Your task to perform on an android device: Show me productivity apps on the Play Store Image 0: 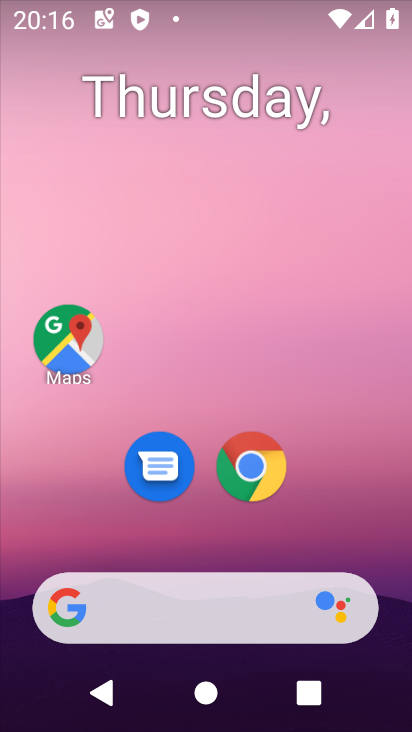
Step 0: drag from (385, 549) to (341, 218)
Your task to perform on an android device: Show me productivity apps on the Play Store Image 1: 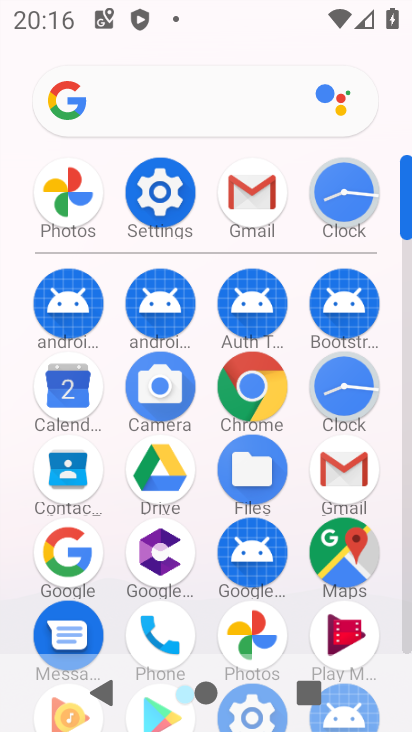
Step 1: drag from (109, 515) to (91, 313)
Your task to perform on an android device: Show me productivity apps on the Play Store Image 2: 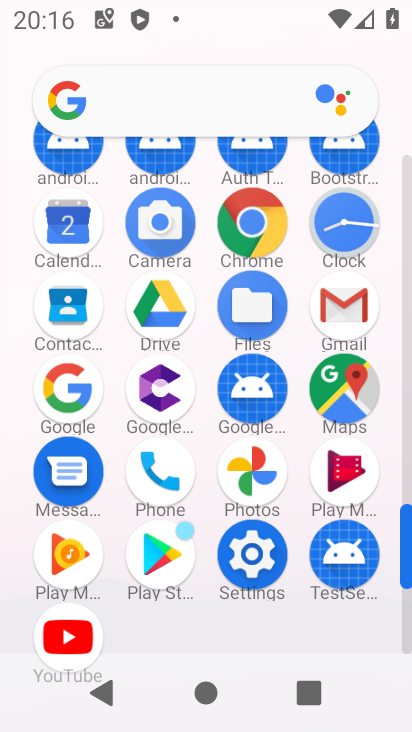
Step 2: click (152, 550)
Your task to perform on an android device: Show me productivity apps on the Play Store Image 3: 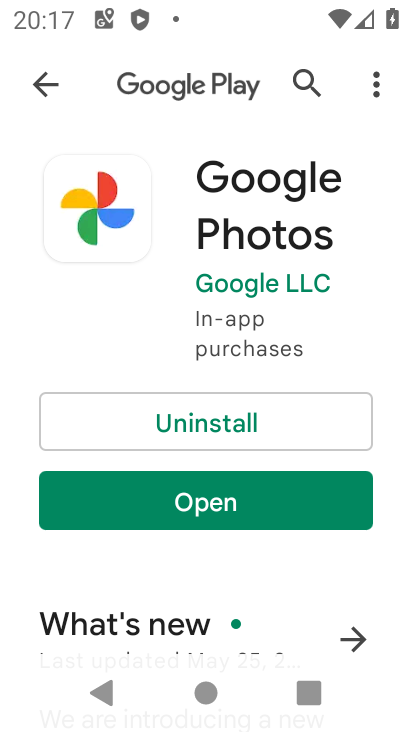
Step 3: click (34, 78)
Your task to perform on an android device: Show me productivity apps on the Play Store Image 4: 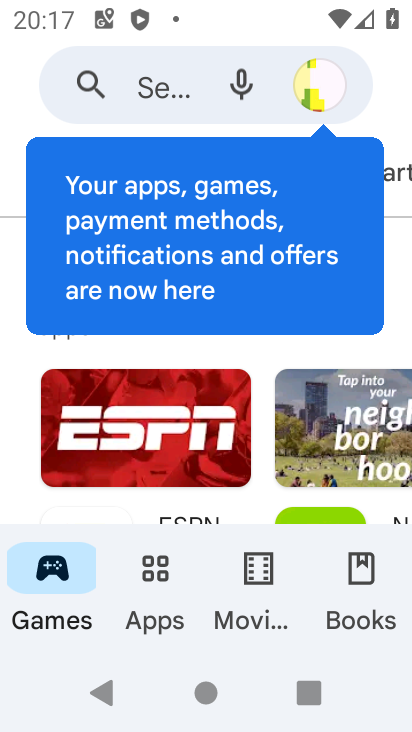
Step 4: drag from (393, 238) to (356, 702)
Your task to perform on an android device: Show me productivity apps on the Play Store Image 5: 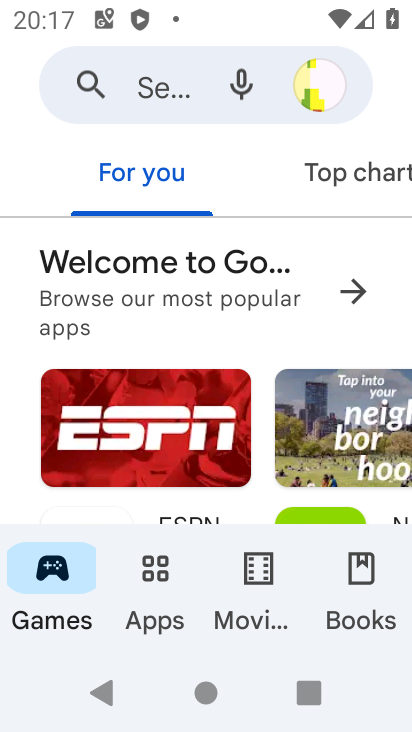
Step 5: click (152, 559)
Your task to perform on an android device: Show me productivity apps on the Play Store Image 6: 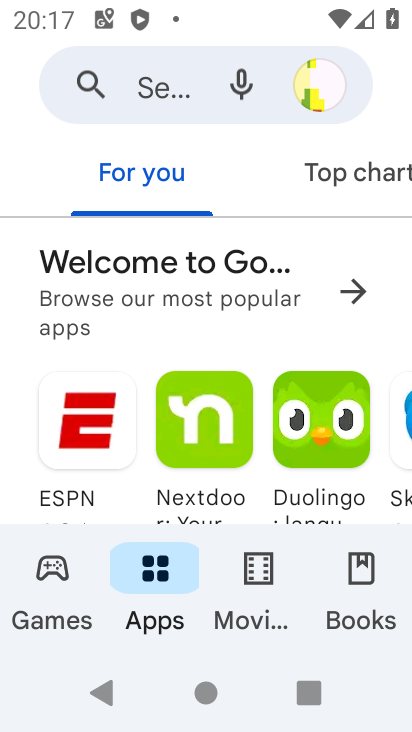
Step 6: drag from (353, 197) to (0, 202)
Your task to perform on an android device: Show me productivity apps on the Play Store Image 7: 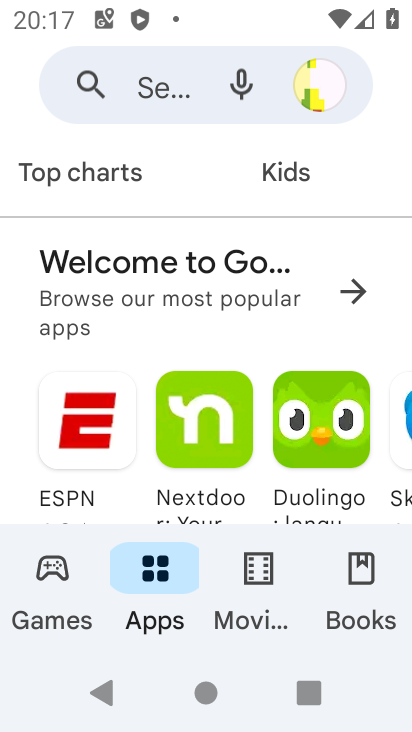
Step 7: drag from (356, 195) to (1, 205)
Your task to perform on an android device: Show me productivity apps on the Play Store Image 8: 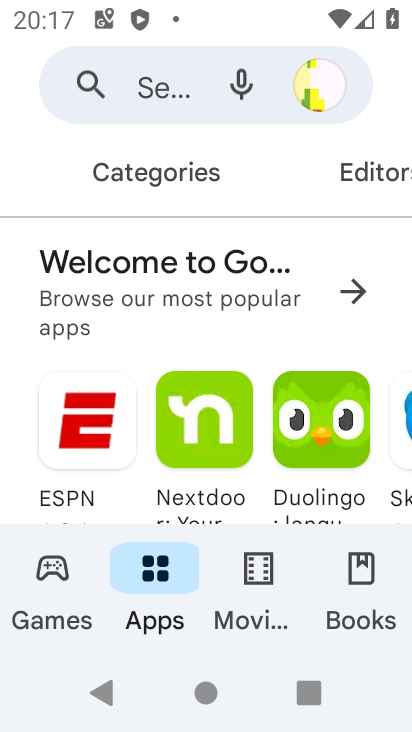
Step 8: click (109, 177)
Your task to perform on an android device: Show me productivity apps on the Play Store Image 9: 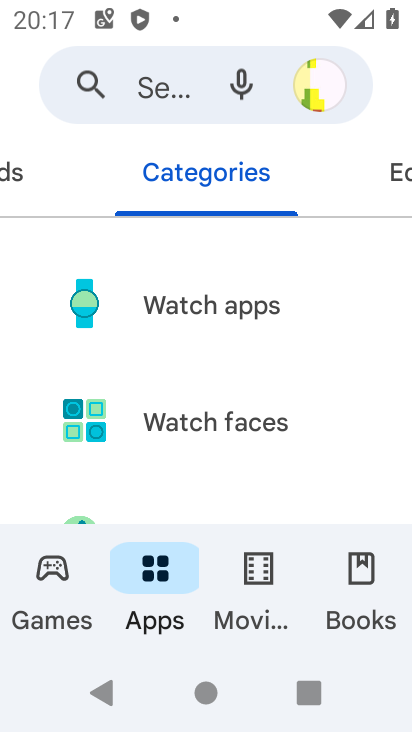
Step 9: drag from (324, 474) to (299, 3)
Your task to perform on an android device: Show me productivity apps on the Play Store Image 10: 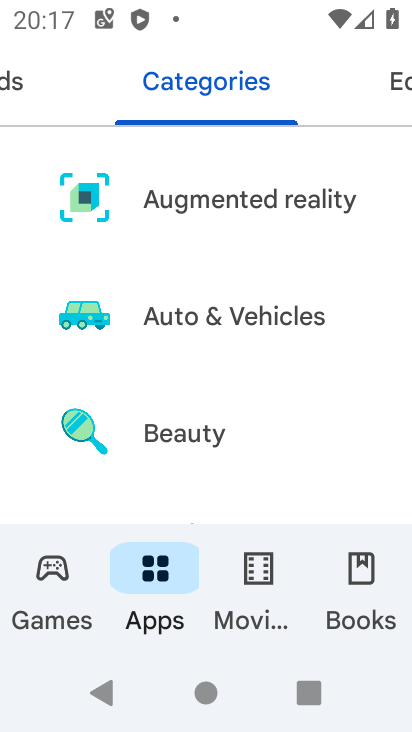
Step 10: drag from (320, 507) to (302, 17)
Your task to perform on an android device: Show me productivity apps on the Play Store Image 11: 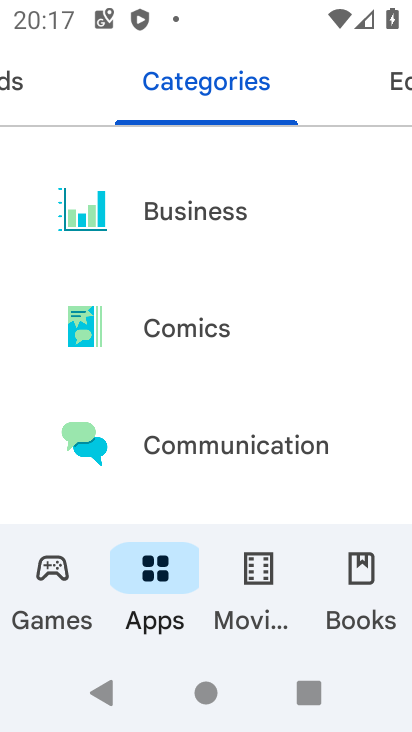
Step 11: drag from (339, 497) to (321, 10)
Your task to perform on an android device: Show me productivity apps on the Play Store Image 12: 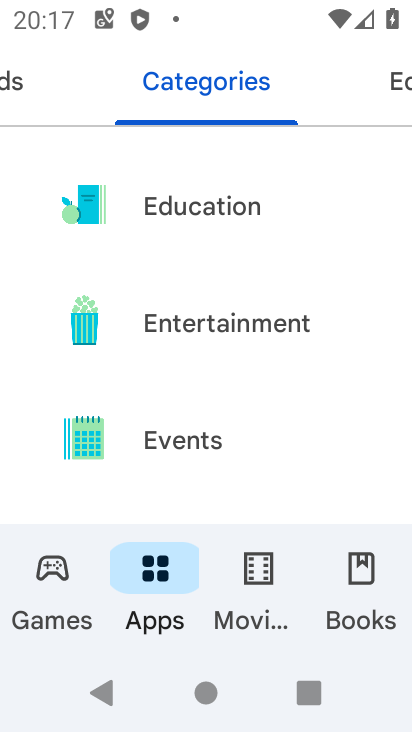
Step 12: drag from (299, 474) to (287, 8)
Your task to perform on an android device: Show me productivity apps on the Play Store Image 13: 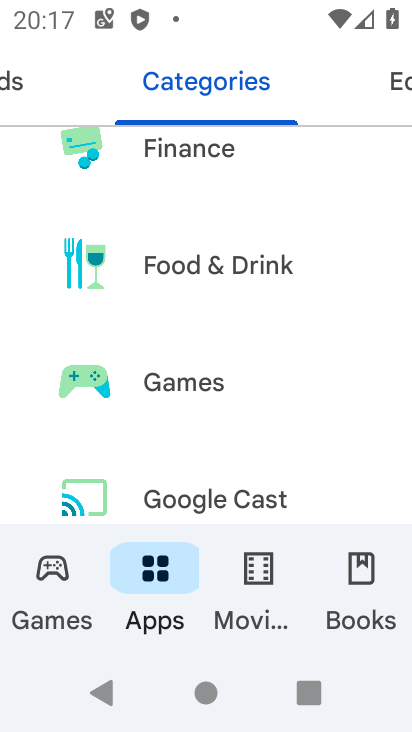
Step 13: drag from (342, 288) to (327, 18)
Your task to perform on an android device: Show me productivity apps on the Play Store Image 14: 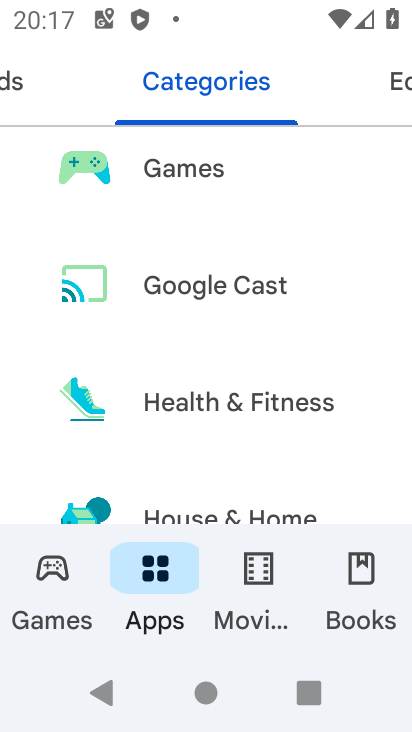
Step 14: drag from (366, 511) to (334, 6)
Your task to perform on an android device: Show me productivity apps on the Play Store Image 15: 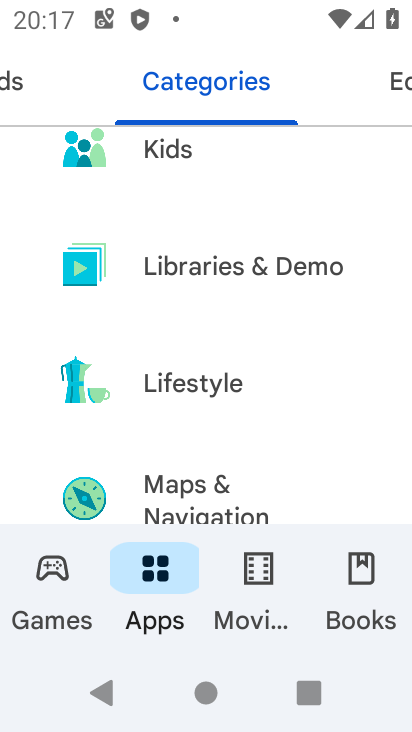
Step 15: drag from (345, 514) to (325, 61)
Your task to perform on an android device: Show me productivity apps on the Play Store Image 16: 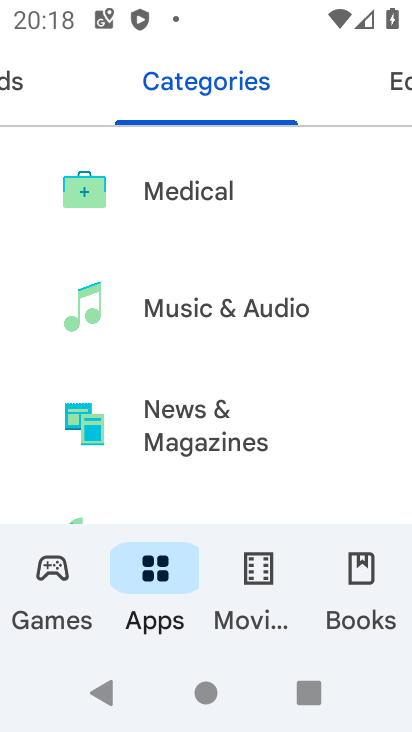
Step 16: drag from (367, 490) to (277, 0)
Your task to perform on an android device: Show me productivity apps on the Play Store Image 17: 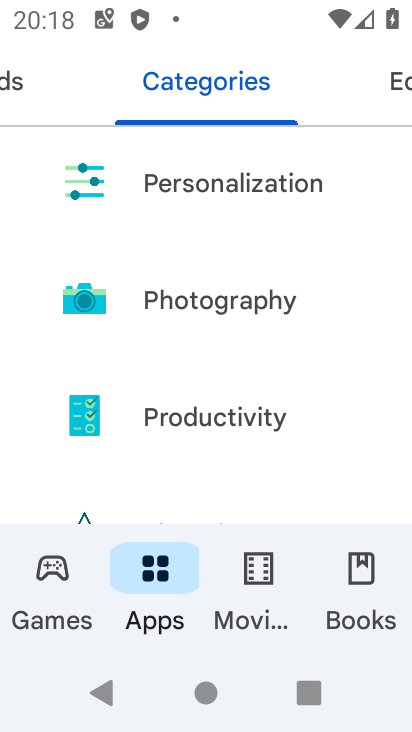
Step 17: click (208, 419)
Your task to perform on an android device: Show me productivity apps on the Play Store Image 18: 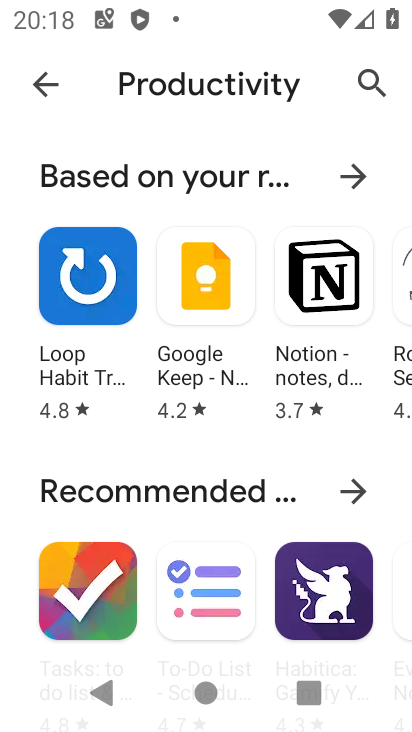
Step 18: task complete